Your task to perform on an android device: Do I have any events today? Image 0: 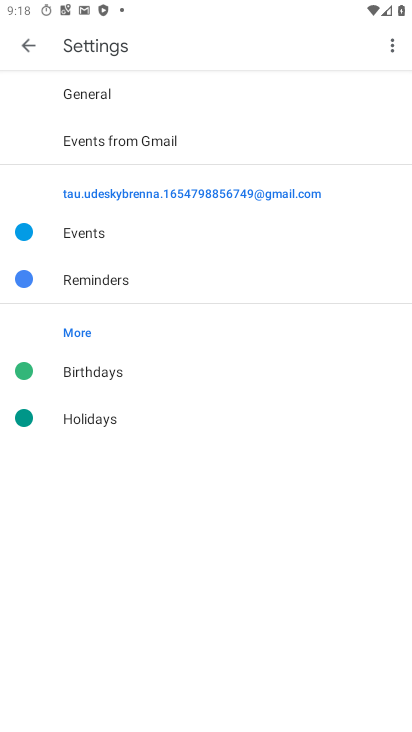
Step 0: press home button
Your task to perform on an android device: Do I have any events today? Image 1: 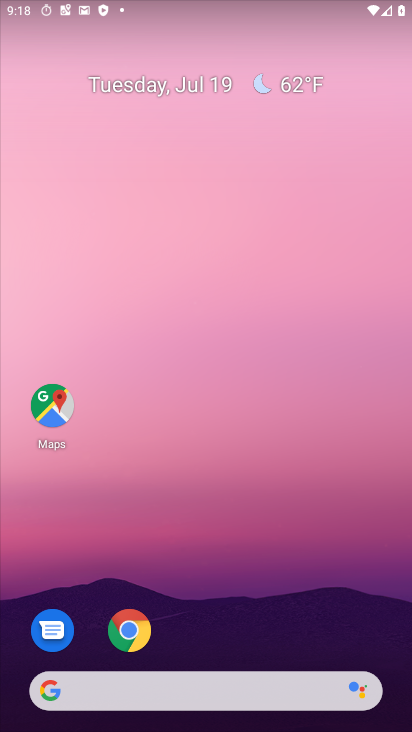
Step 1: drag from (18, 715) to (159, 31)
Your task to perform on an android device: Do I have any events today? Image 2: 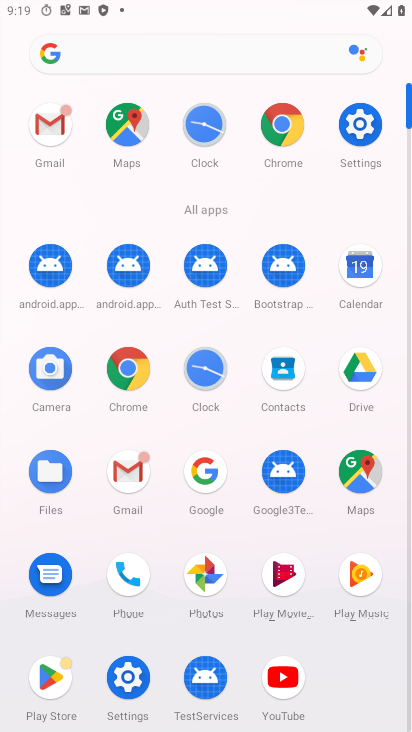
Step 2: click (365, 259)
Your task to perform on an android device: Do I have any events today? Image 3: 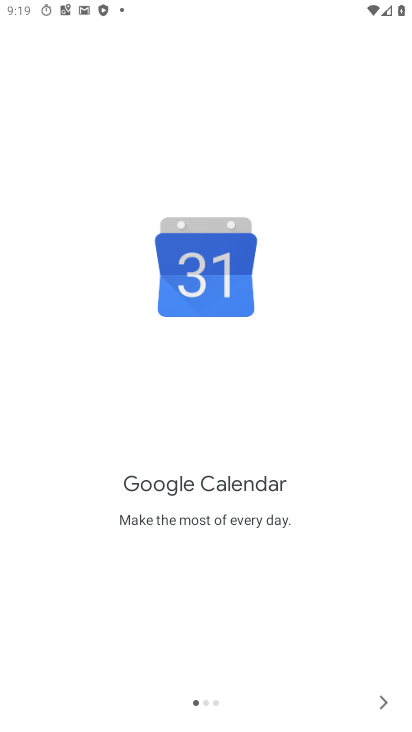
Step 3: click (382, 703)
Your task to perform on an android device: Do I have any events today? Image 4: 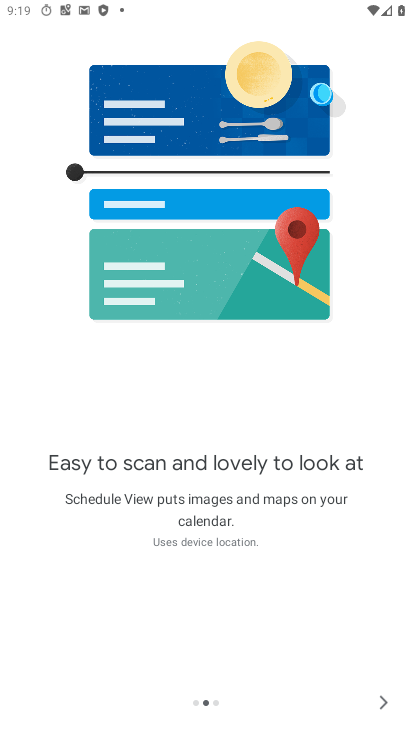
Step 4: click (383, 678)
Your task to perform on an android device: Do I have any events today? Image 5: 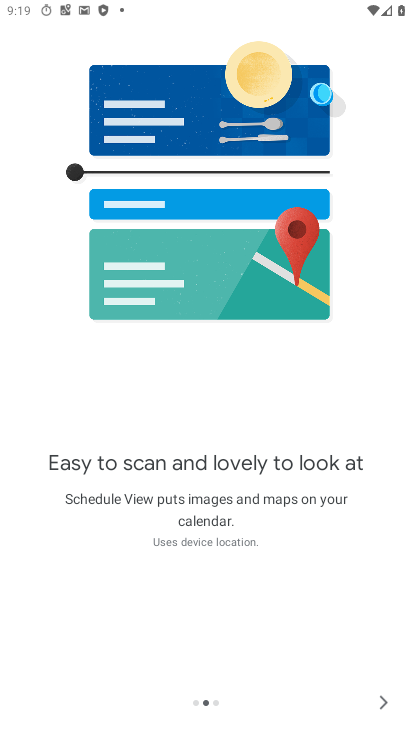
Step 5: click (387, 699)
Your task to perform on an android device: Do I have any events today? Image 6: 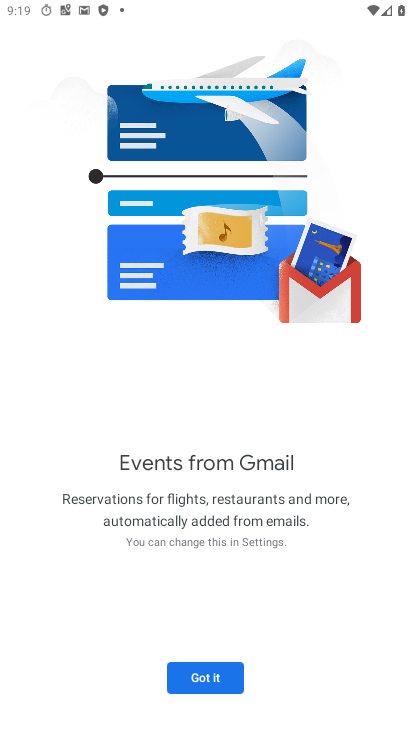
Step 6: click (217, 671)
Your task to perform on an android device: Do I have any events today? Image 7: 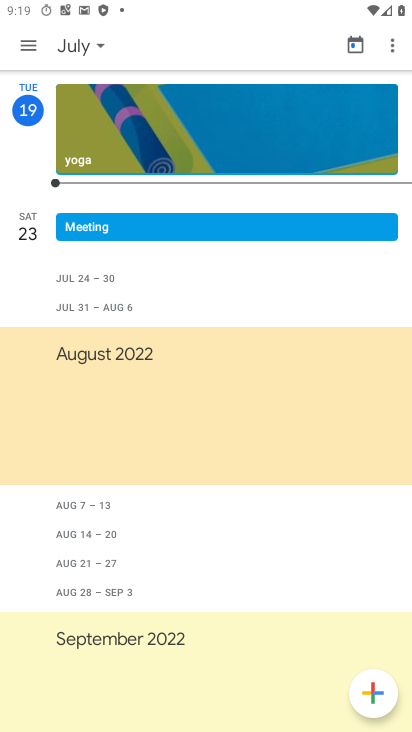
Step 7: click (89, 36)
Your task to perform on an android device: Do I have any events today? Image 8: 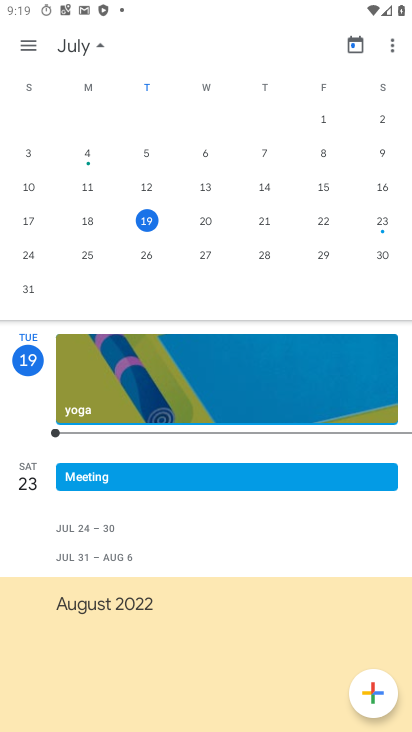
Step 8: task complete